Your task to perform on an android device: Open sound settings Image 0: 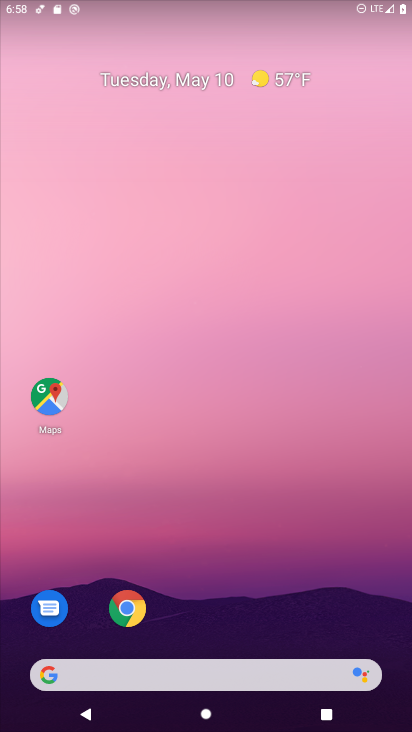
Step 0: drag from (361, 606) to (226, 18)
Your task to perform on an android device: Open sound settings Image 1: 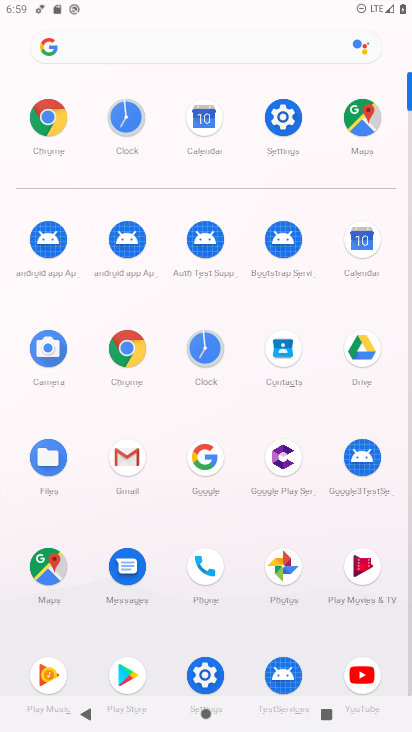
Step 1: click (218, 670)
Your task to perform on an android device: Open sound settings Image 2: 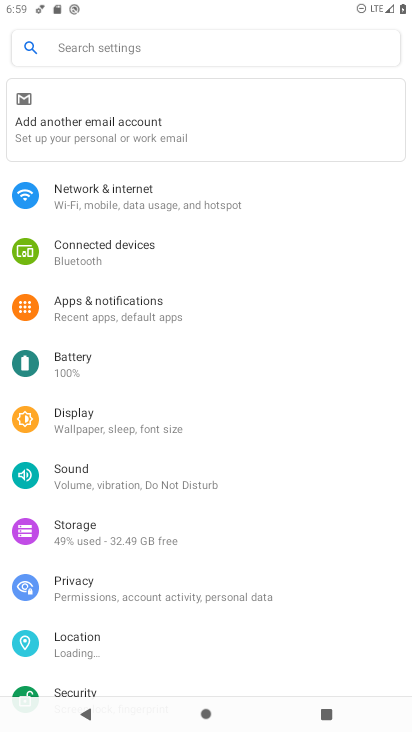
Step 2: click (106, 475)
Your task to perform on an android device: Open sound settings Image 3: 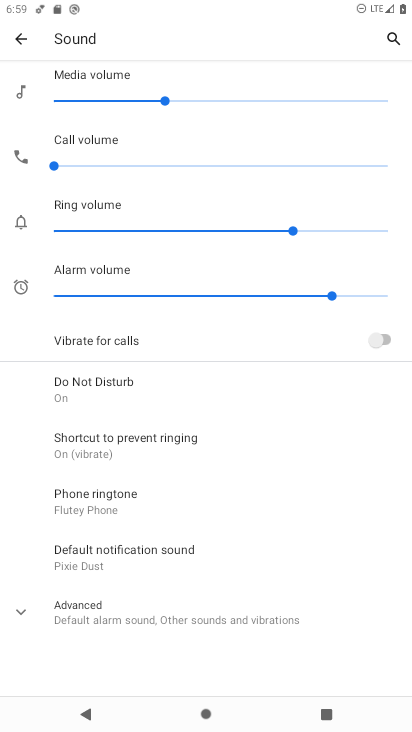
Step 3: task complete